Your task to perform on an android device: Open calendar and show me the third week of next month Image 0: 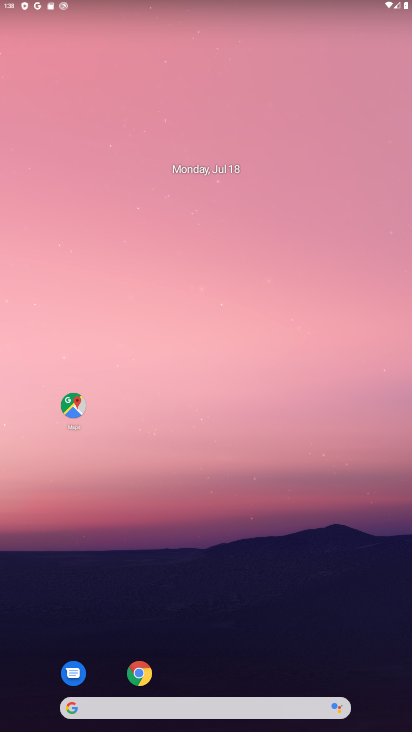
Step 0: drag from (189, 705) to (289, 94)
Your task to perform on an android device: Open calendar and show me the third week of next month Image 1: 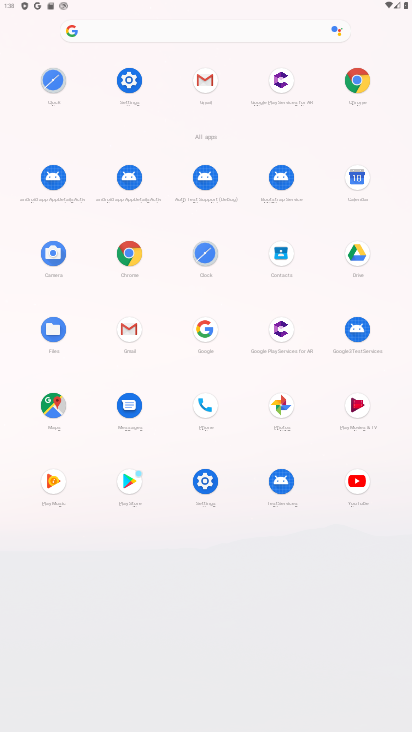
Step 1: click (359, 178)
Your task to perform on an android device: Open calendar and show me the third week of next month Image 2: 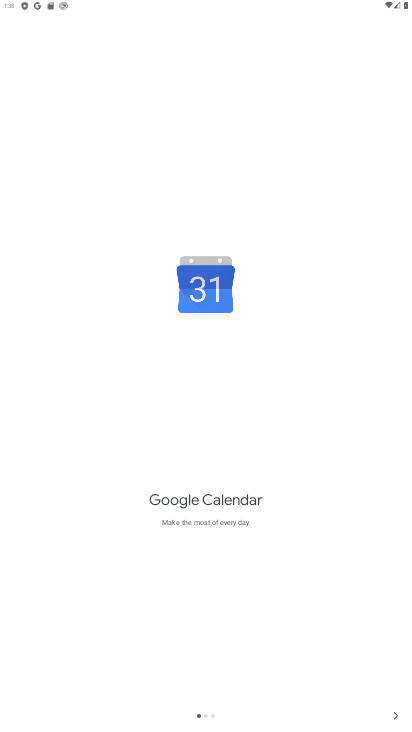
Step 2: click (400, 716)
Your task to perform on an android device: Open calendar and show me the third week of next month Image 3: 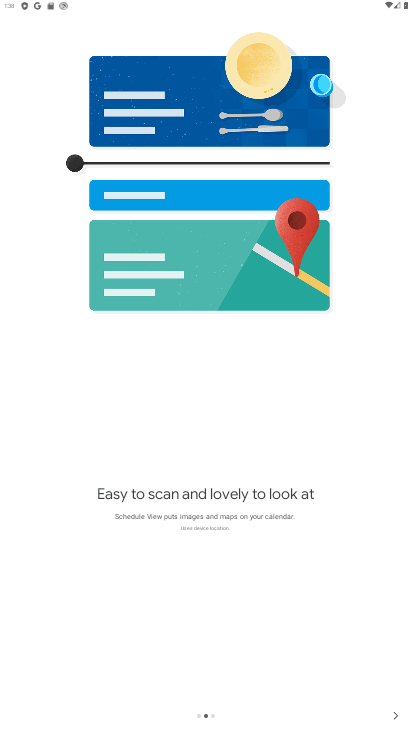
Step 3: click (400, 717)
Your task to perform on an android device: Open calendar and show me the third week of next month Image 4: 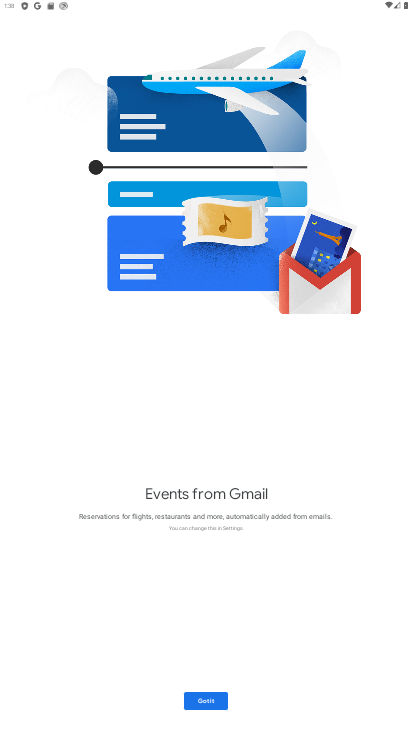
Step 4: click (197, 695)
Your task to perform on an android device: Open calendar and show me the third week of next month Image 5: 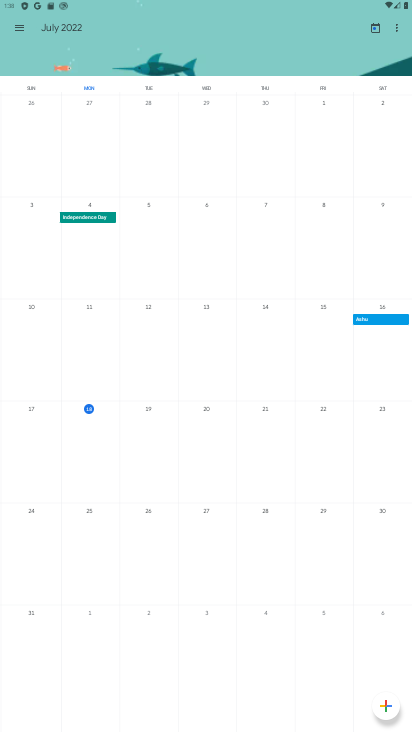
Step 5: drag from (352, 424) to (5, 460)
Your task to perform on an android device: Open calendar and show me the third week of next month Image 6: 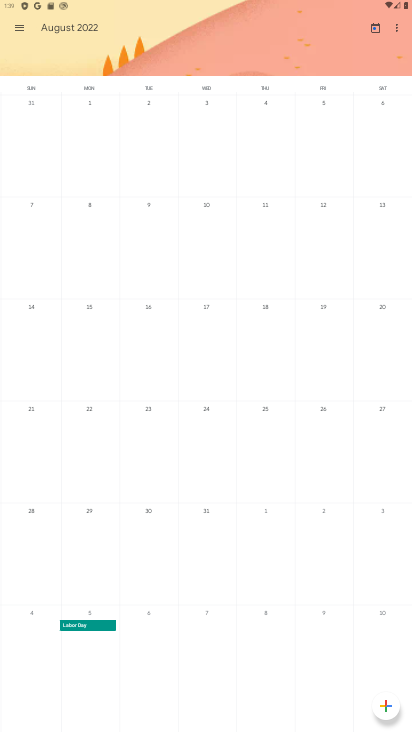
Step 6: click (108, 351)
Your task to perform on an android device: Open calendar and show me the third week of next month Image 7: 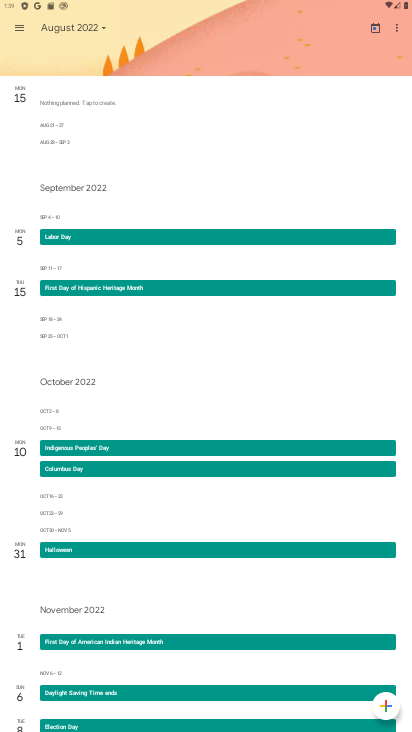
Step 7: click (24, 29)
Your task to perform on an android device: Open calendar and show me the third week of next month Image 8: 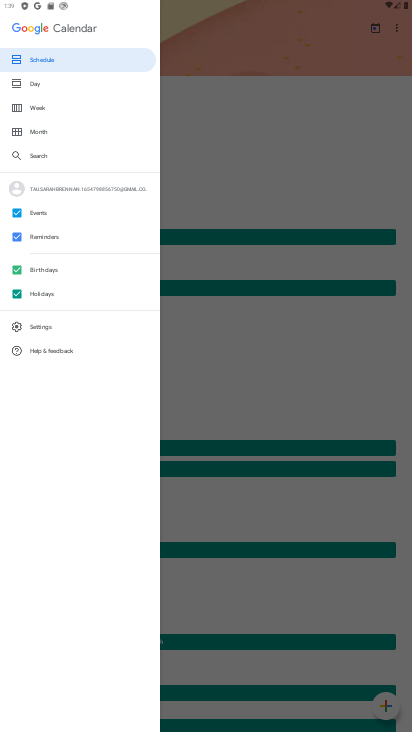
Step 8: click (38, 106)
Your task to perform on an android device: Open calendar and show me the third week of next month Image 9: 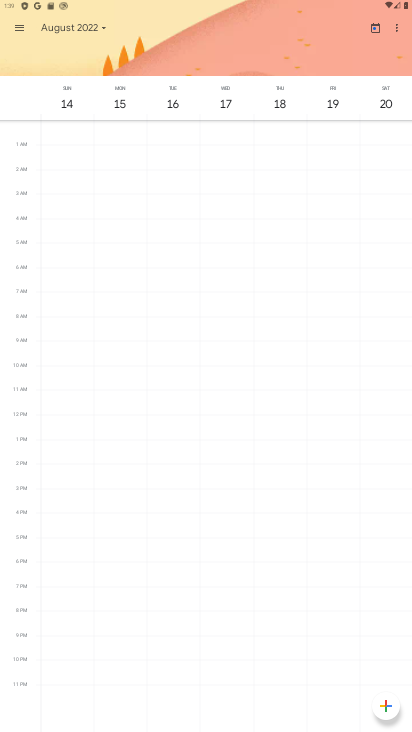
Step 9: task complete